Your task to perform on an android device: Open Google Chrome and click the shortcut for Amazon.com Image 0: 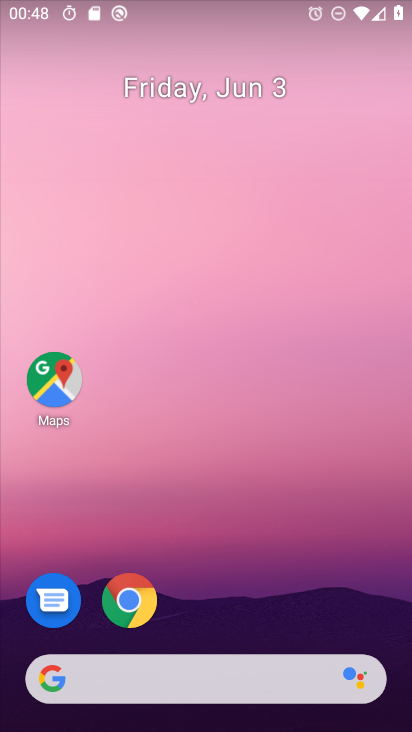
Step 0: click (132, 597)
Your task to perform on an android device: Open Google Chrome and click the shortcut for Amazon.com Image 1: 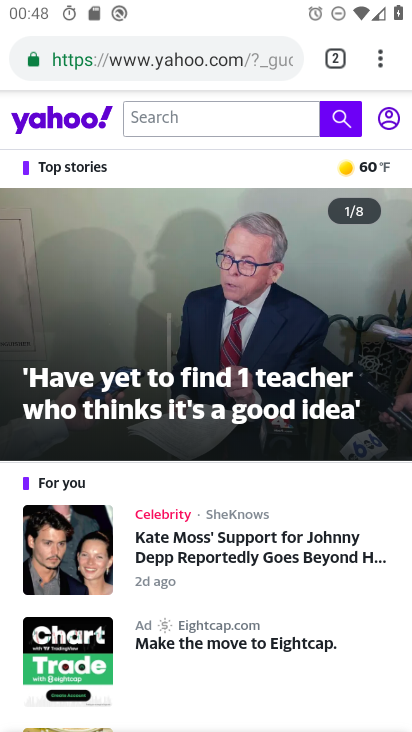
Step 1: press back button
Your task to perform on an android device: Open Google Chrome and click the shortcut for Amazon.com Image 2: 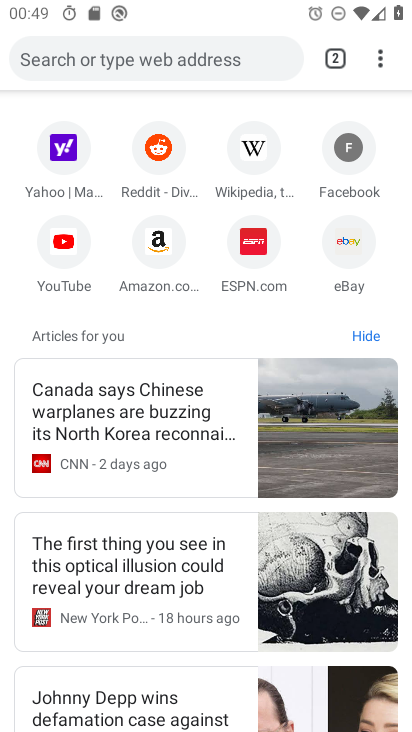
Step 2: click (157, 241)
Your task to perform on an android device: Open Google Chrome and click the shortcut for Amazon.com Image 3: 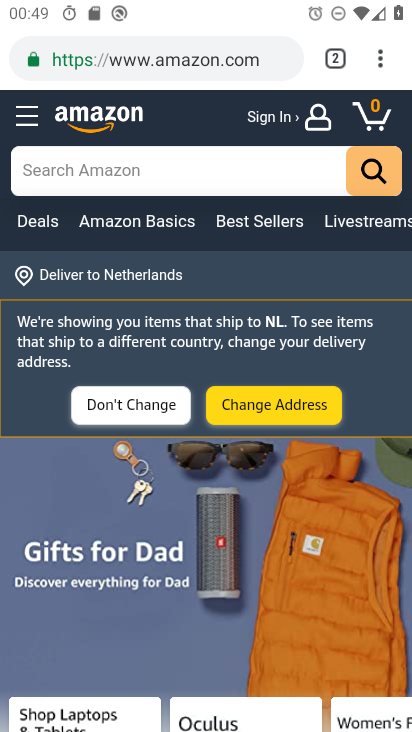
Step 3: task complete